Your task to perform on an android device: Open Chrome and go to settings Image 0: 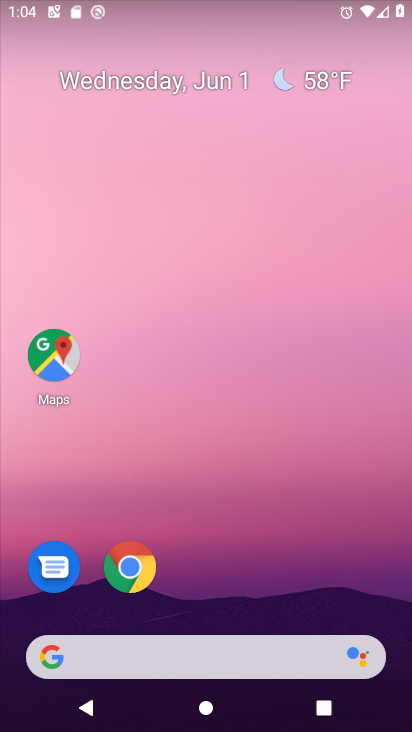
Step 0: click (138, 561)
Your task to perform on an android device: Open Chrome and go to settings Image 1: 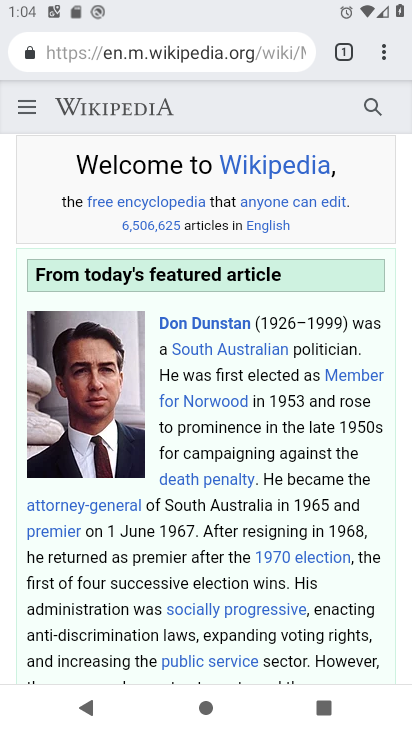
Step 1: click (377, 65)
Your task to perform on an android device: Open Chrome and go to settings Image 2: 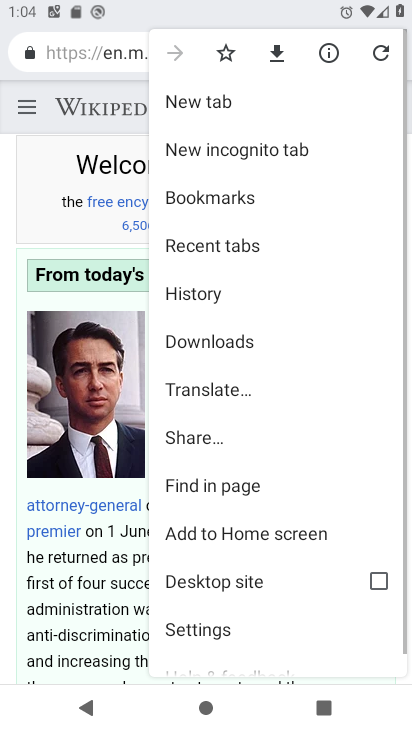
Step 2: drag from (226, 597) to (251, 353)
Your task to perform on an android device: Open Chrome and go to settings Image 3: 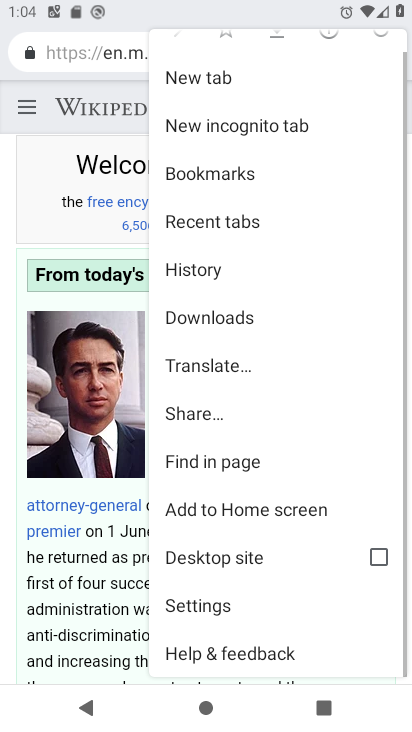
Step 3: click (213, 594)
Your task to perform on an android device: Open Chrome and go to settings Image 4: 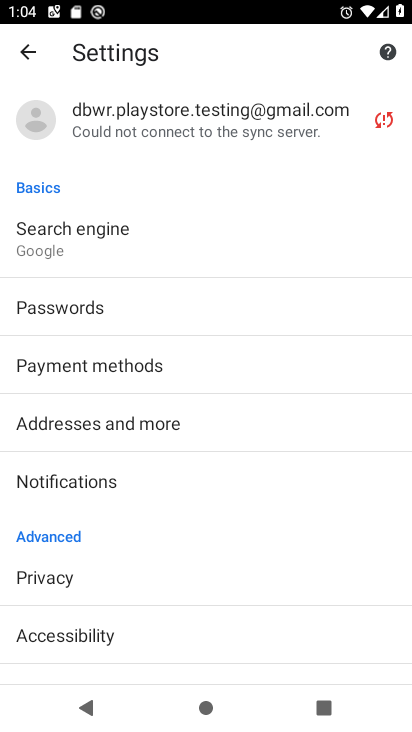
Step 4: task complete